Your task to perform on an android device: Go to privacy settings Image 0: 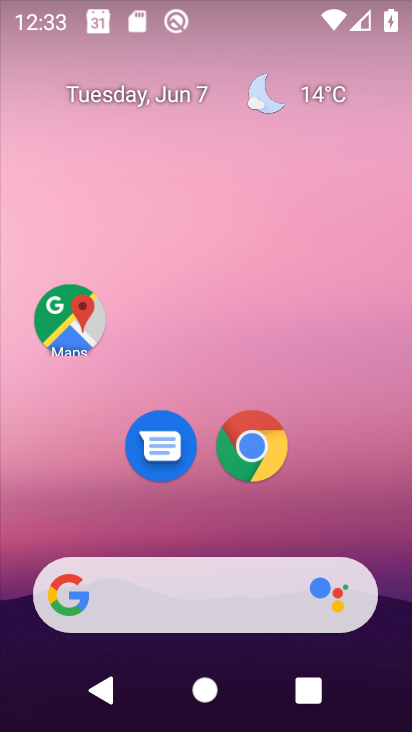
Step 0: drag from (271, 161) to (281, 6)
Your task to perform on an android device: Go to privacy settings Image 1: 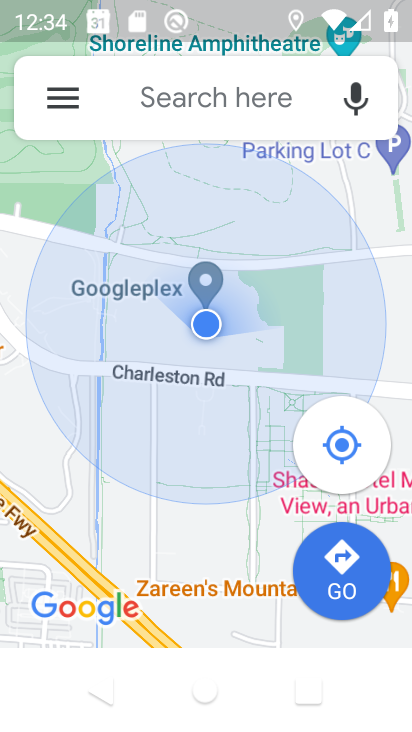
Step 1: press back button
Your task to perform on an android device: Go to privacy settings Image 2: 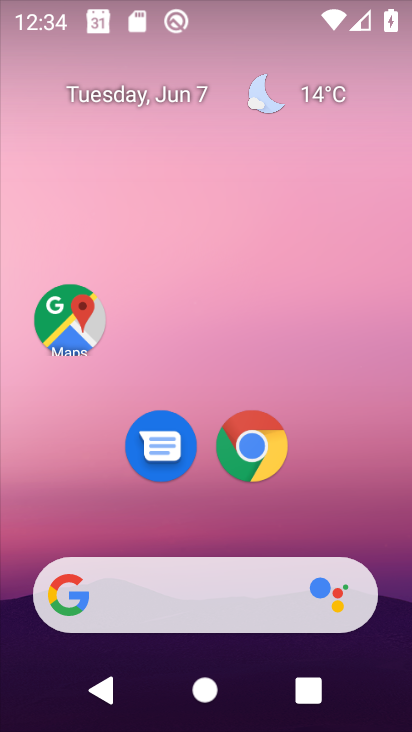
Step 2: drag from (226, 422) to (279, 28)
Your task to perform on an android device: Go to privacy settings Image 3: 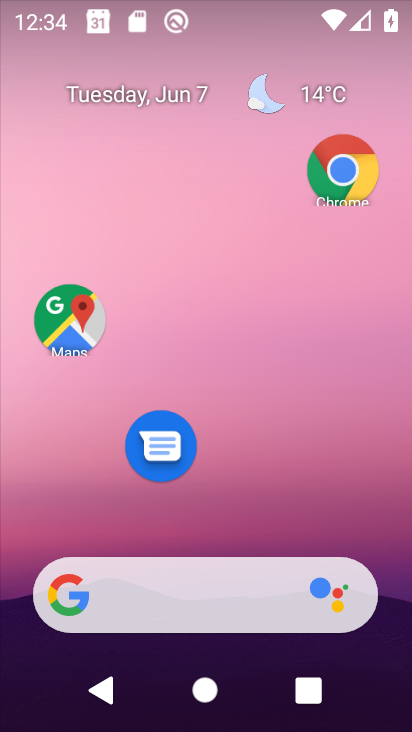
Step 3: drag from (271, 442) to (224, 33)
Your task to perform on an android device: Go to privacy settings Image 4: 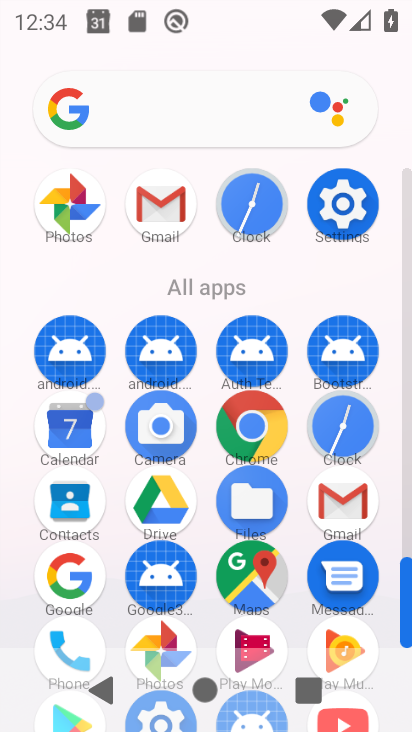
Step 4: click (337, 216)
Your task to perform on an android device: Go to privacy settings Image 5: 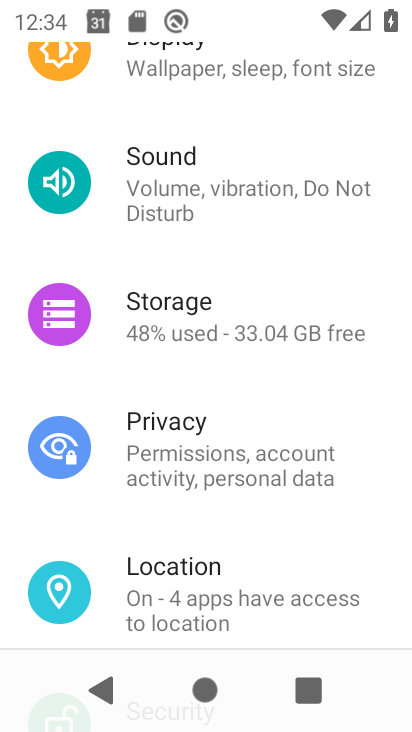
Step 5: click (173, 444)
Your task to perform on an android device: Go to privacy settings Image 6: 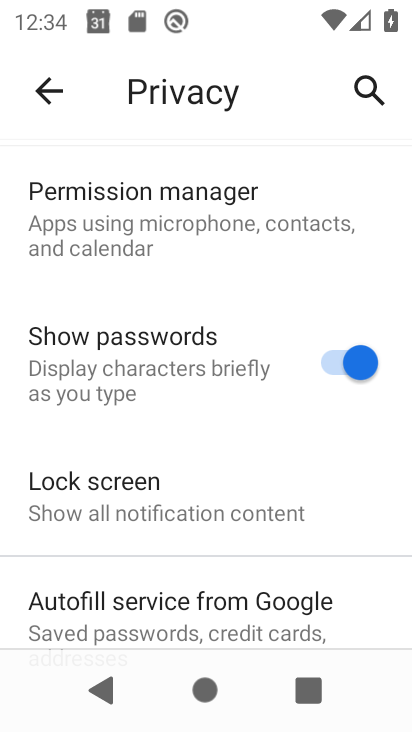
Step 6: task complete